Your task to perform on an android device: Is it going to rain today? Image 0: 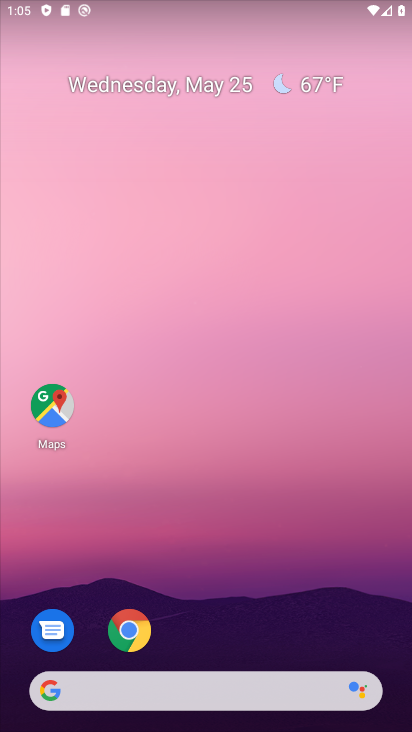
Step 0: press home button
Your task to perform on an android device: Is it going to rain today? Image 1: 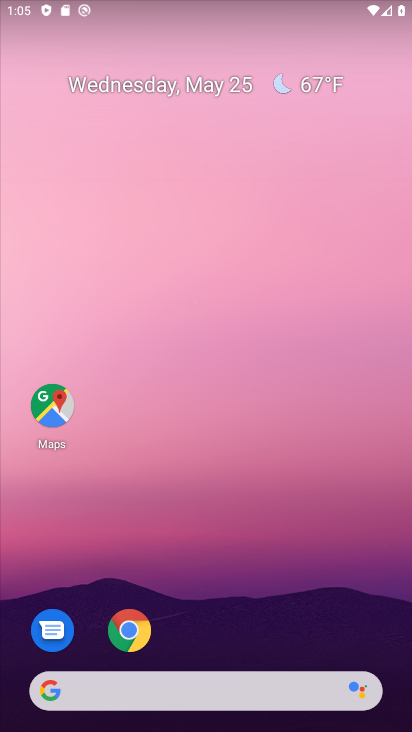
Step 1: click (308, 79)
Your task to perform on an android device: Is it going to rain today? Image 2: 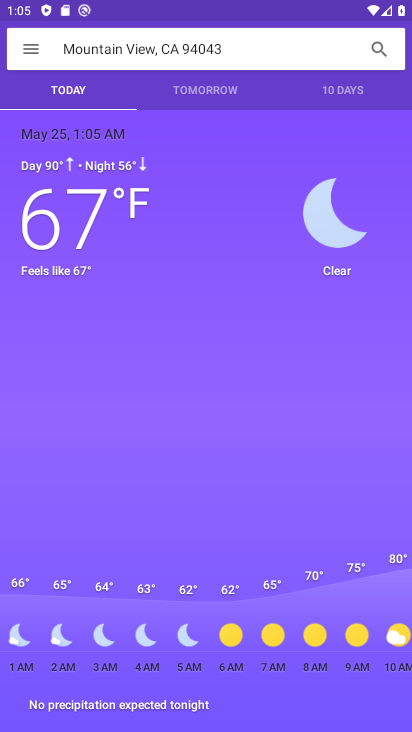
Step 2: task complete